Your task to perform on an android device: change timer sound Image 0: 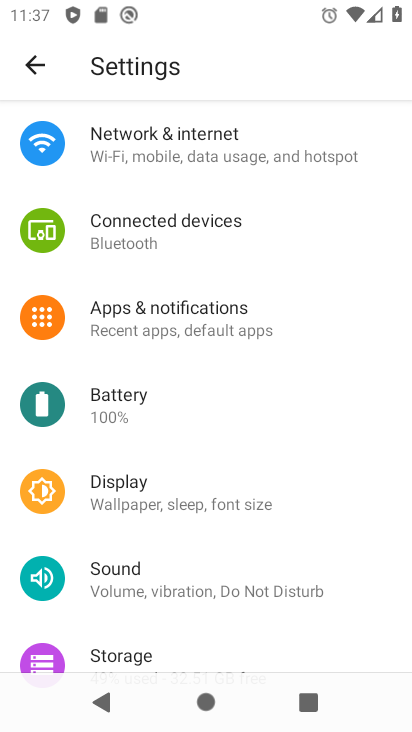
Step 0: press home button
Your task to perform on an android device: change timer sound Image 1: 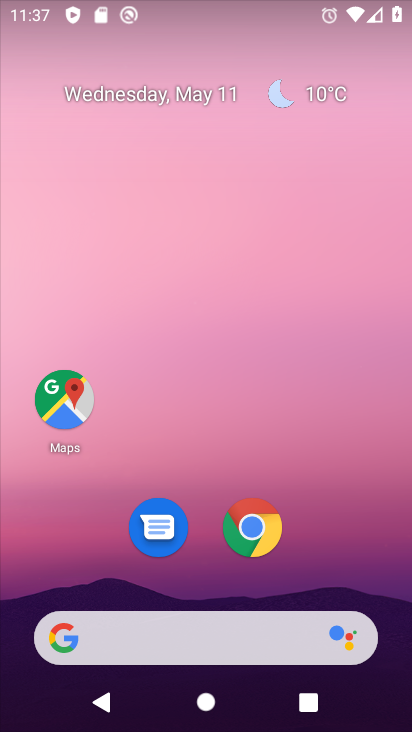
Step 1: drag from (249, 581) to (286, 4)
Your task to perform on an android device: change timer sound Image 2: 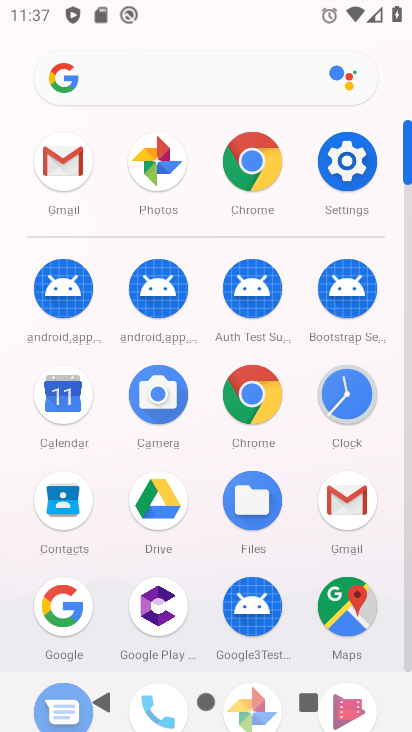
Step 2: click (353, 404)
Your task to perform on an android device: change timer sound Image 3: 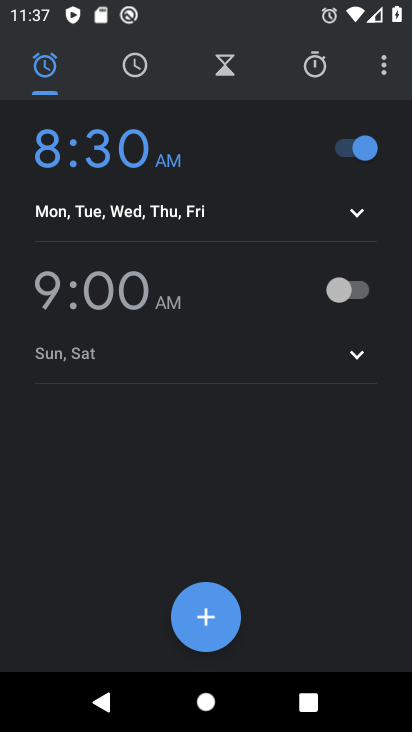
Step 3: click (373, 49)
Your task to perform on an android device: change timer sound Image 4: 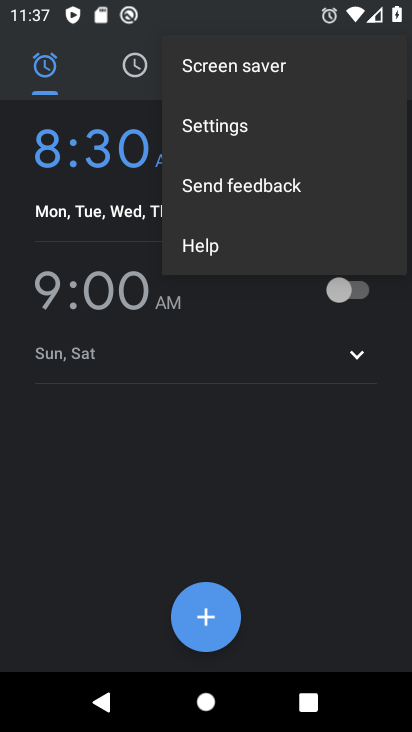
Step 4: click (226, 144)
Your task to perform on an android device: change timer sound Image 5: 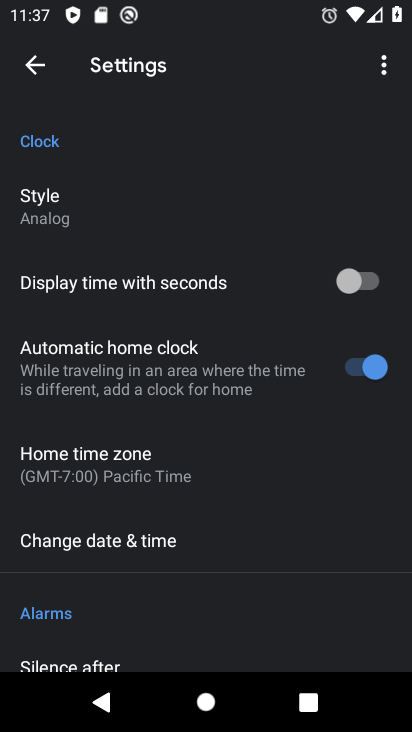
Step 5: drag from (187, 508) to (269, 180)
Your task to perform on an android device: change timer sound Image 6: 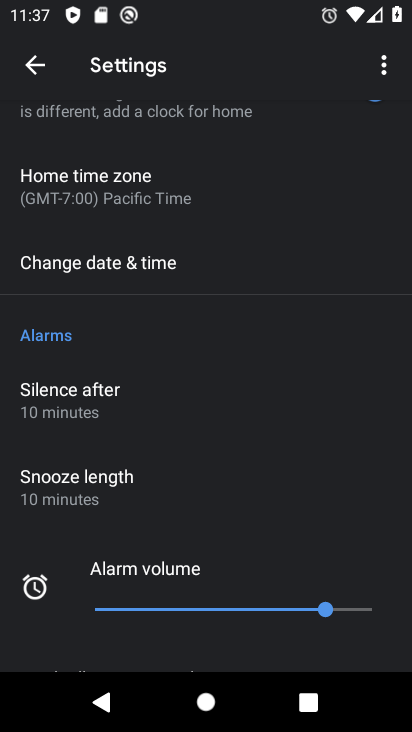
Step 6: drag from (139, 487) to (179, 220)
Your task to perform on an android device: change timer sound Image 7: 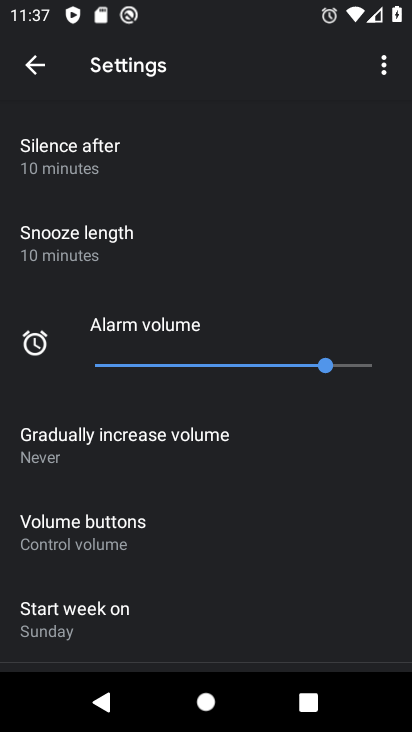
Step 7: drag from (137, 571) to (210, 246)
Your task to perform on an android device: change timer sound Image 8: 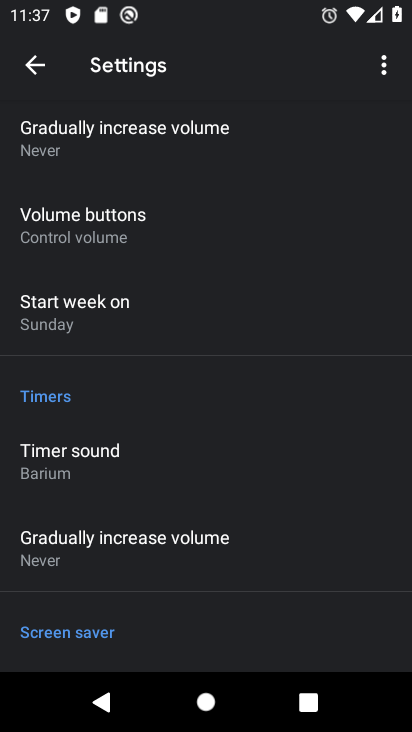
Step 8: click (117, 474)
Your task to perform on an android device: change timer sound Image 9: 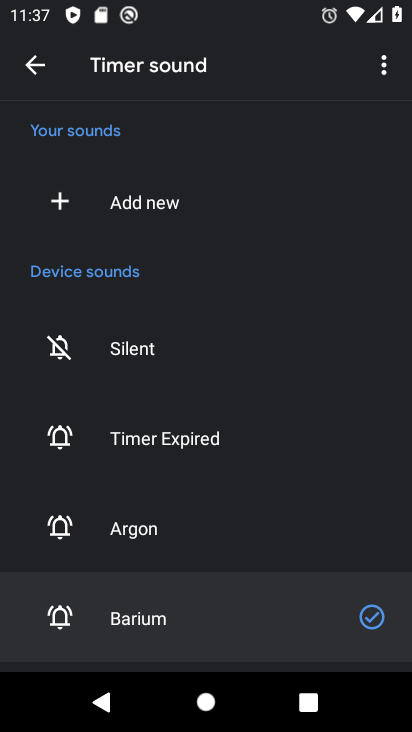
Step 9: click (153, 455)
Your task to perform on an android device: change timer sound Image 10: 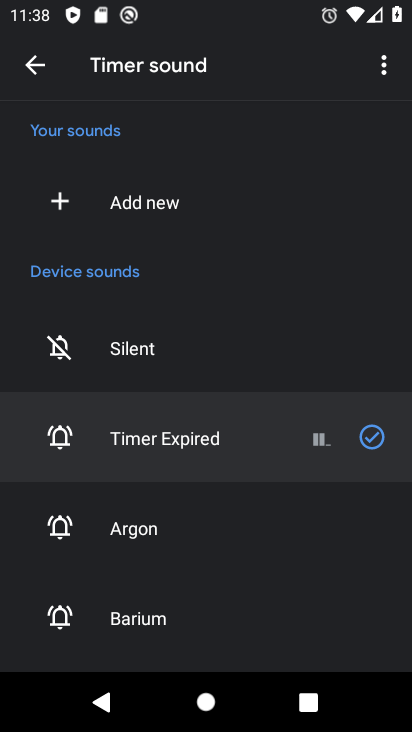
Step 10: task complete